Your task to perform on an android device: Search for the best websites on the internet Image 0: 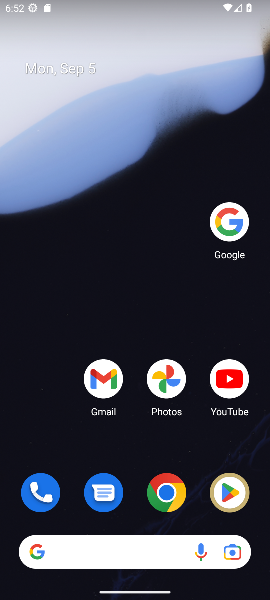
Step 0: click (219, 217)
Your task to perform on an android device: Search for the best websites on the internet Image 1: 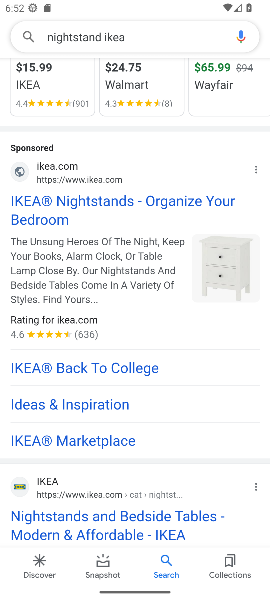
Step 1: click (140, 25)
Your task to perform on an android device: Search for the best websites on the internet Image 2: 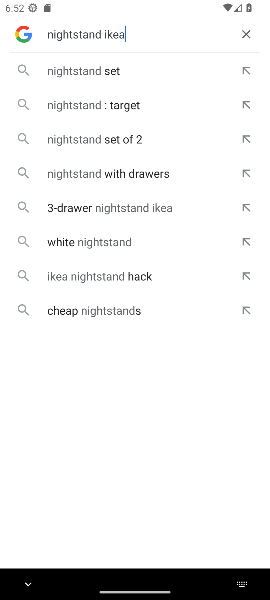
Step 2: click (251, 32)
Your task to perform on an android device: Search for the best websites on the internet Image 3: 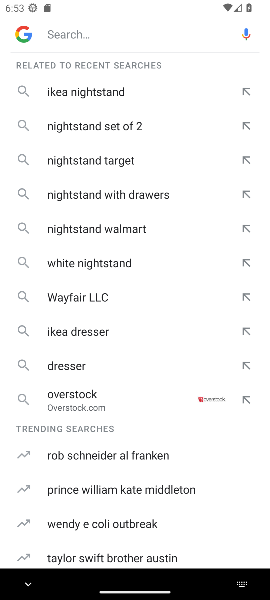
Step 3: click (139, 38)
Your task to perform on an android device: Search for the best websites on the internet Image 4: 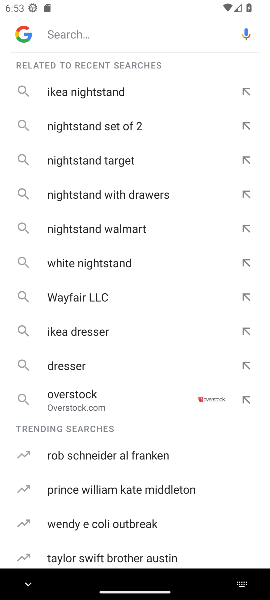
Step 4: type "the best websites on the internet "
Your task to perform on an android device: Search for the best websites on the internet Image 5: 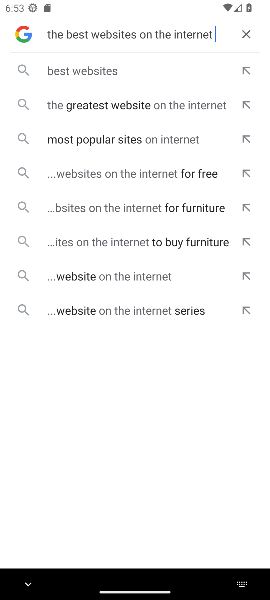
Step 5: click (104, 70)
Your task to perform on an android device: Search for the best websites on the internet Image 6: 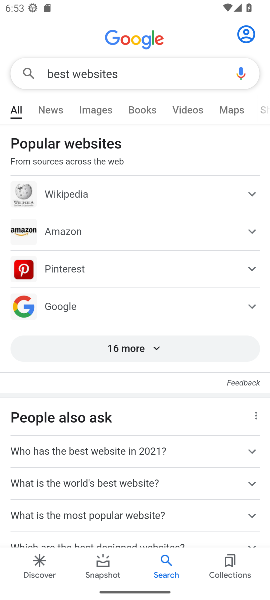
Step 6: drag from (157, 519) to (160, 175)
Your task to perform on an android device: Search for the best websites on the internet Image 7: 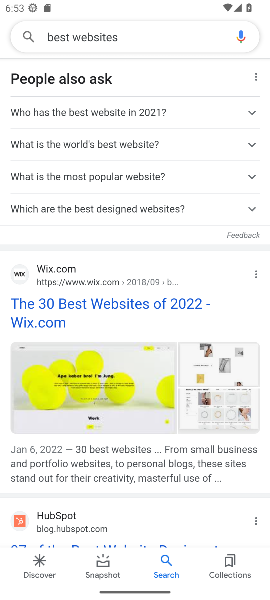
Step 7: click (137, 304)
Your task to perform on an android device: Search for the best websites on the internet Image 8: 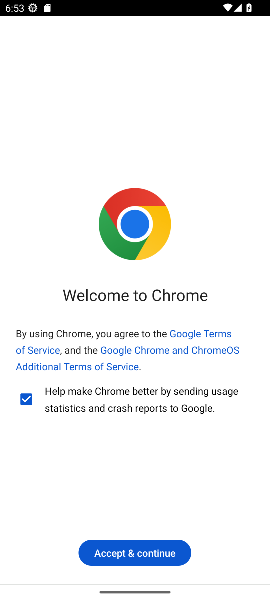
Step 8: click (152, 548)
Your task to perform on an android device: Search for the best websites on the internet Image 9: 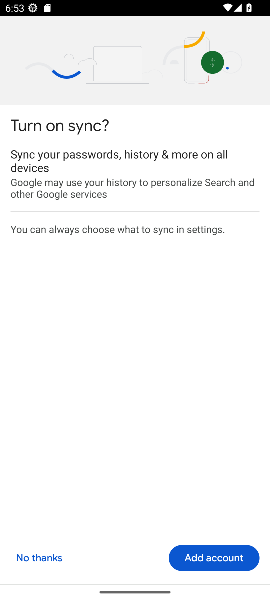
Step 9: click (65, 554)
Your task to perform on an android device: Search for the best websites on the internet Image 10: 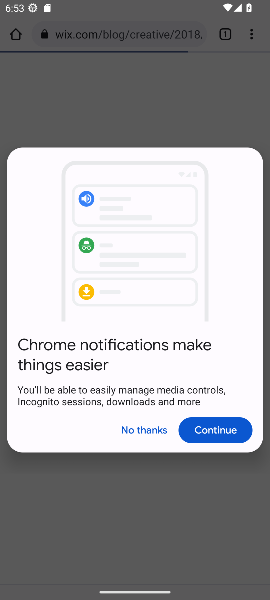
Step 10: click (154, 423)
Your task to perform on an android device: Search for the best websites on the internet Image 11: 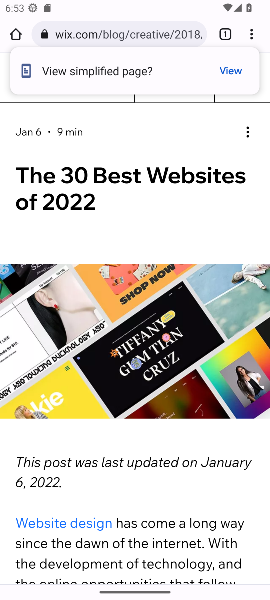
Step 11: task complete